Your task to perform on an android device: check android version Image 0: 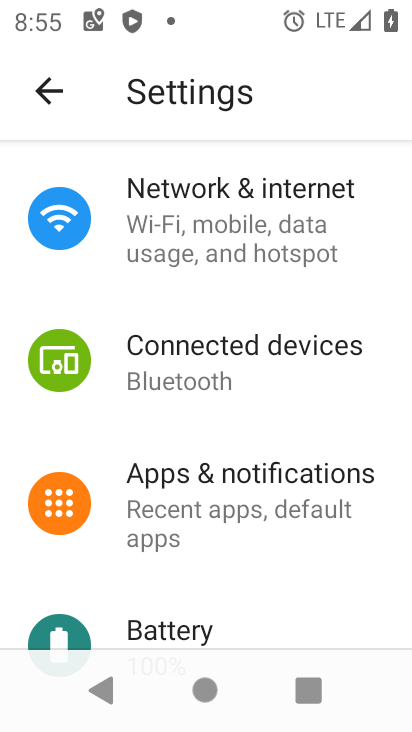
Step 0: drag from (208, 598) to (218, 221)
Your task to perform on an android device: check android version Image 1: 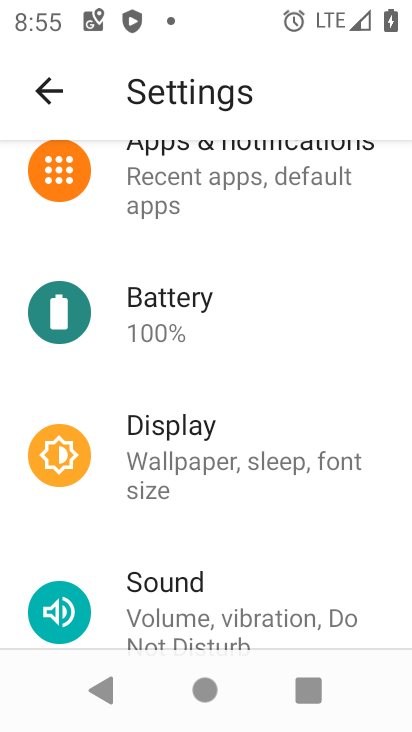
Step 1: drag from (244, 604) to (246, 199)
Your task to perform on an android device: check android version Image 2: 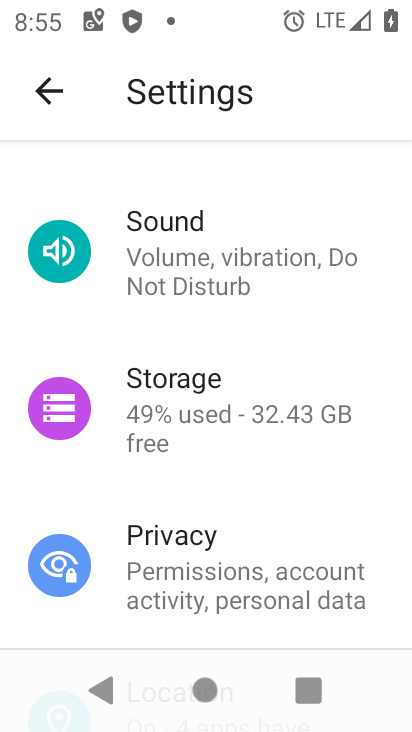
Step 2: drag from (247, 581) to (252, 243)
Your task to perform on an android device: check android version Image 3: 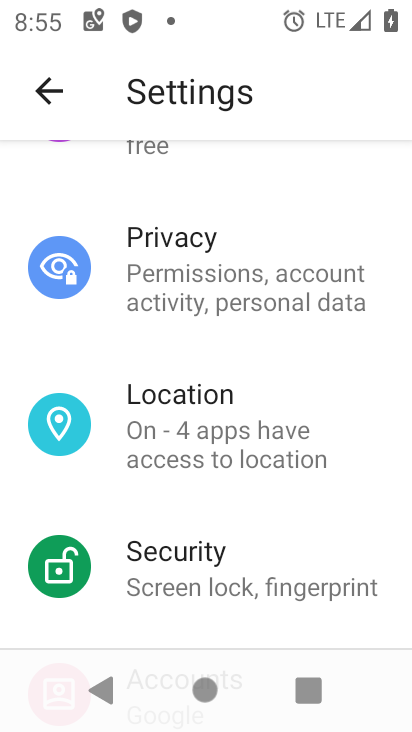
Step 3: drag from (227, 610) to (230, 273)
Your task to perform on an android device: check android version Image 4: 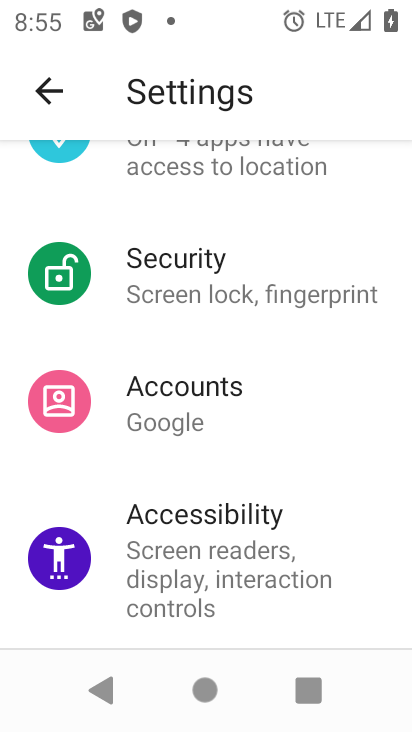
Step 4: drag from (235, 622) to (225, 139)
Your task to perform on an android device: check android version Image 5: 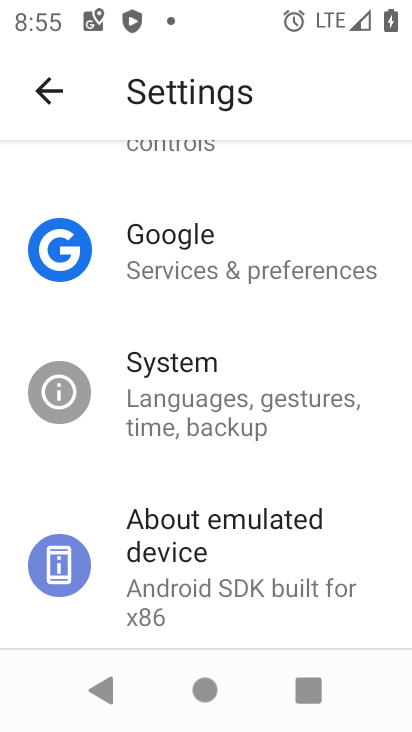
Step 5: drag from (211, 619) to (216, 270)
Your task to perform on an android device: check android version Image 6: 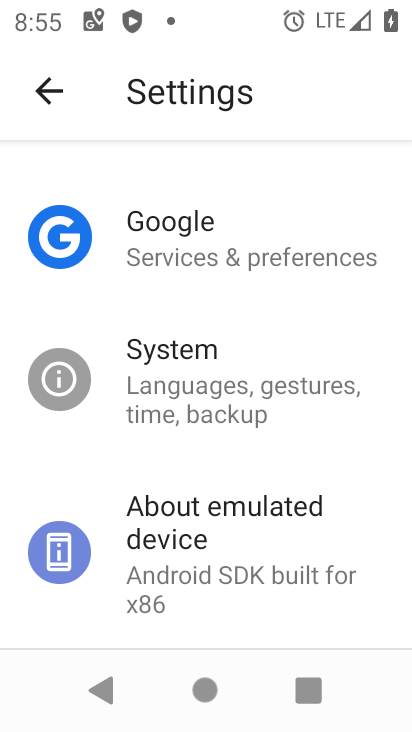
Step 6: click (178, 535)
Your task to perform on an android device: check android version Image 7: 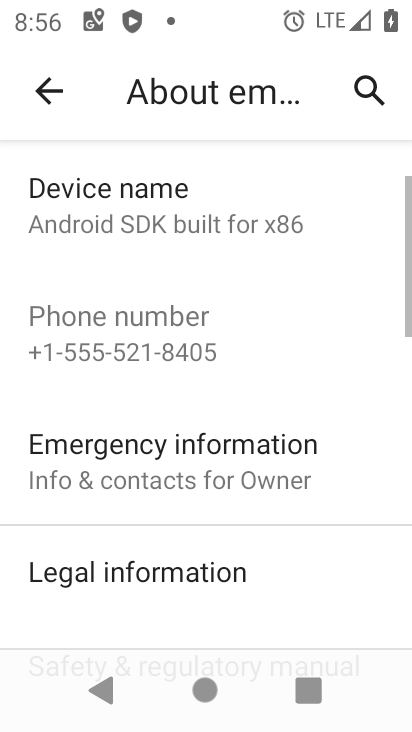
Step 7: drag from (166, 560) to (166, 181)
Your task to perform on an android device: check android version Image 8: 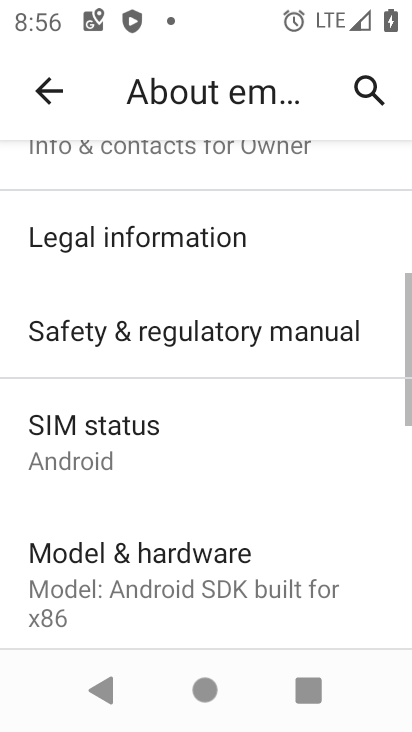
Step 8: drag from (204, 614) to (208, 230)
Your task to perform on an android device: check android version Image 9: 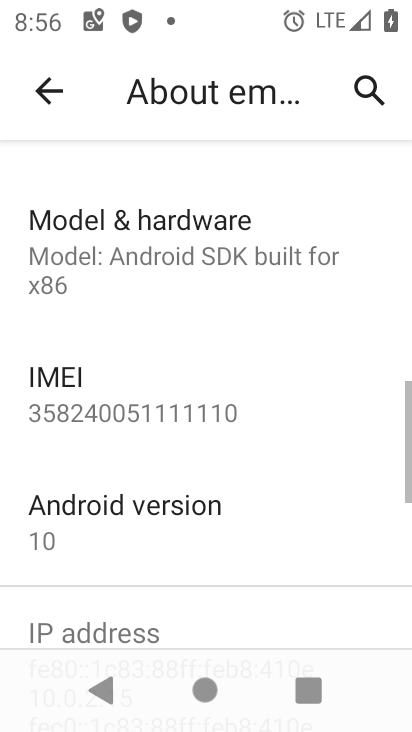
Step 9: click (139, 502)
Your task to perform on an android device: check android version Image 10: 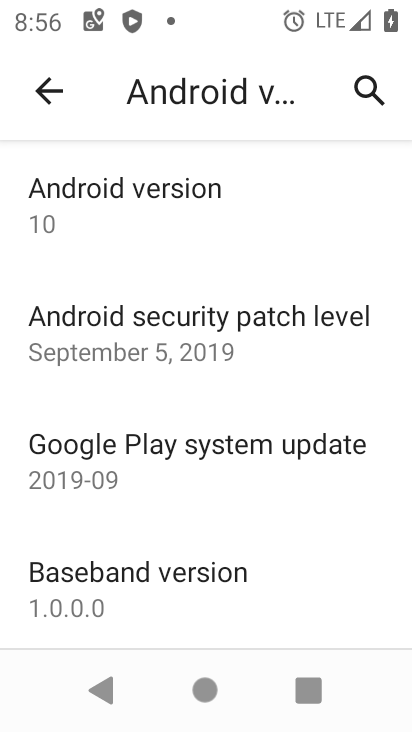
Step 10: task complete